Your task to perform on an android device: refresh tabs in the chrome app Image 0: 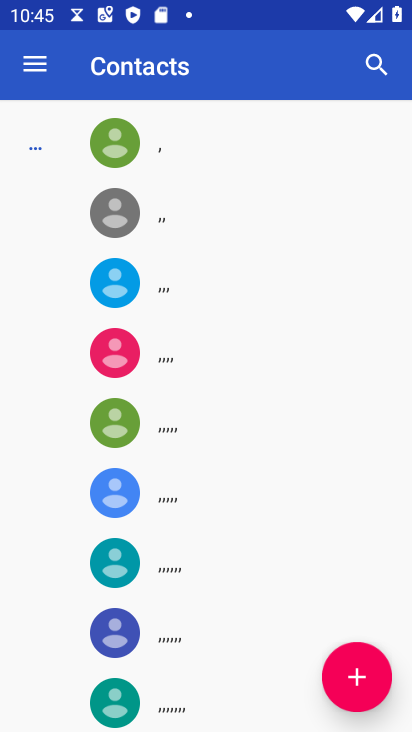
Step 0: press home button
Your task to perform on an android device: refresh tabs in the chrome app Image 1: 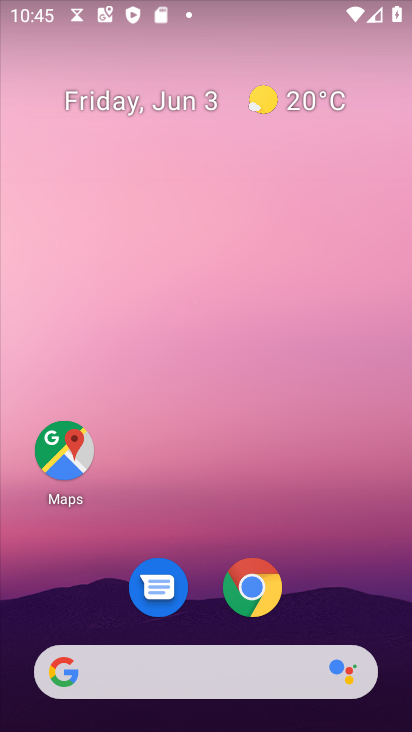
Step 1: click (260, 578)
Your task to perform on an android device: refresh tabs in the chrome app Image 2: 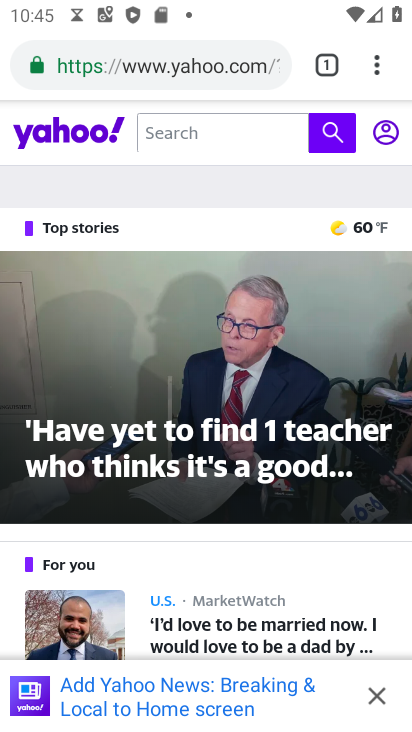
Step 2: click (372, 69)
Your task to perform on an android device: refresh tabs in the chrome app Image 3: 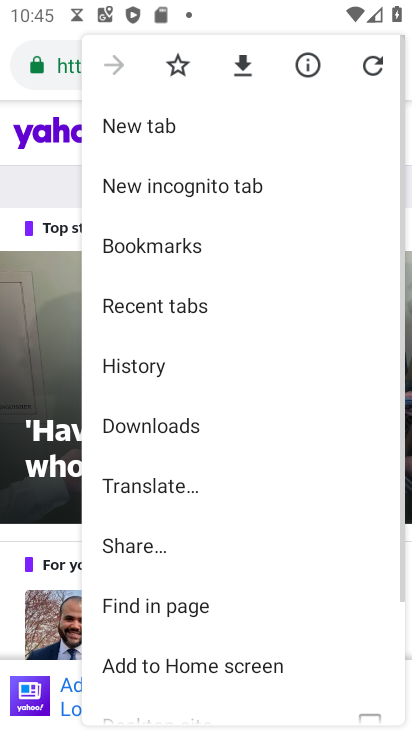
Step 3: click (372, 56)
Your task to perform on an android device: refresh tabs in the chrome app Image 4: 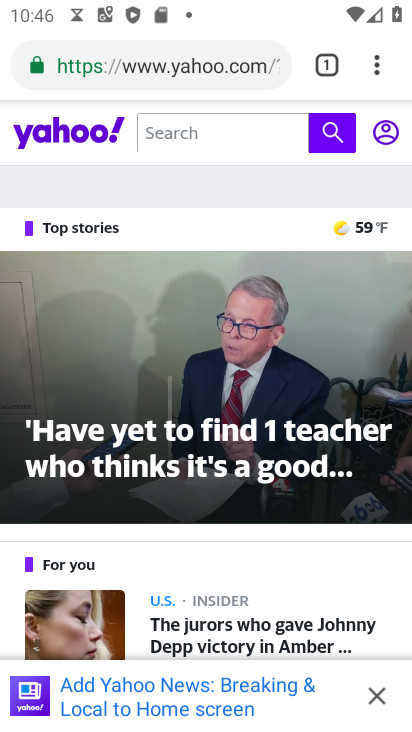
Step 4: click (383, 72)
Your task to perform on an android device: refresh tabs in the chrome app Image 5: 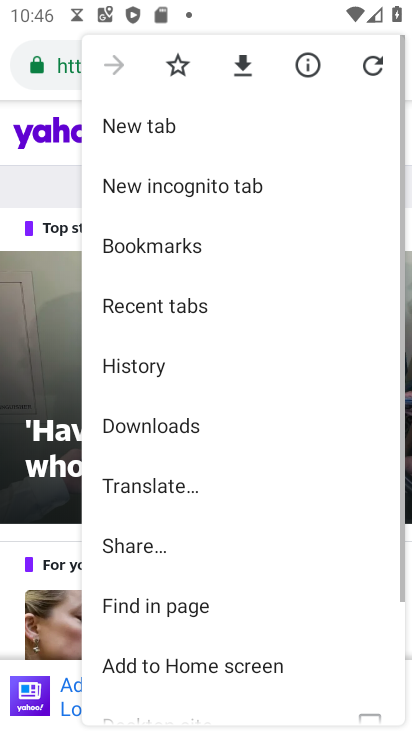
Step 5: click (380, 70)
Your task to perform on an android device: refresh tabs in the chrome app Image 6: 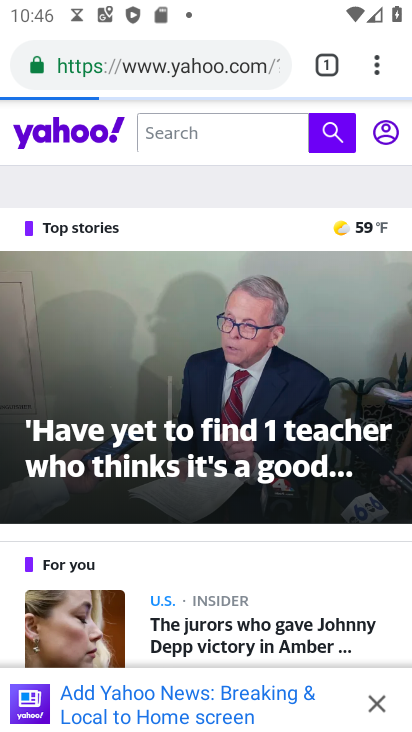
Step 6: task complete